Your task to perform on an android device: stop showing notifications on the lock screen Image 0: 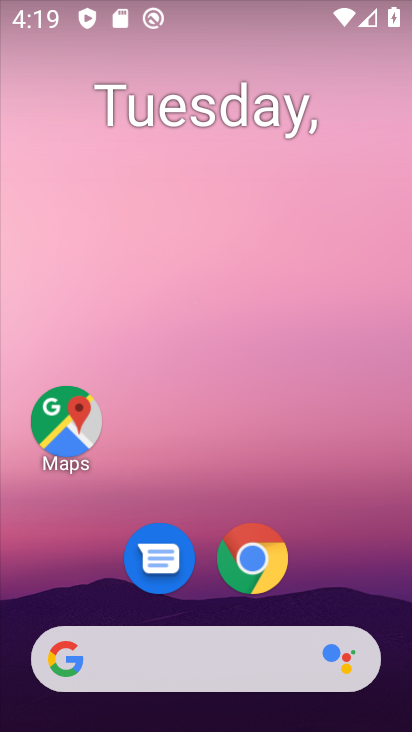
Step 0: drag from (177, 601) to (191, 237)
Your task to perform on an android device: stop showing notifications on the lock screen Image 1: 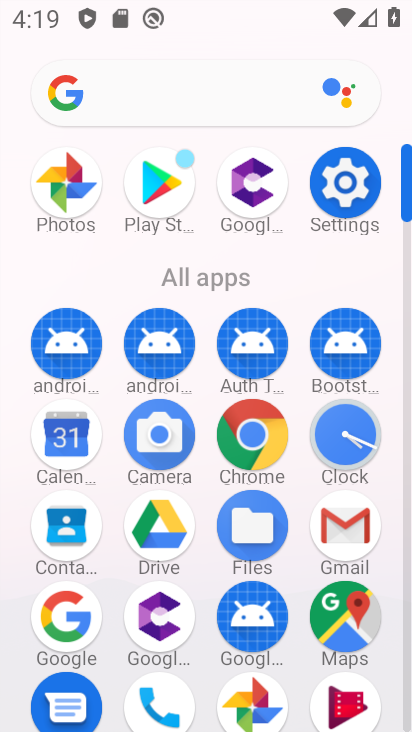
Step 1: click (350, 189)
Your task to perform on an android device: stop showing notifications on the lock screen Image 2: 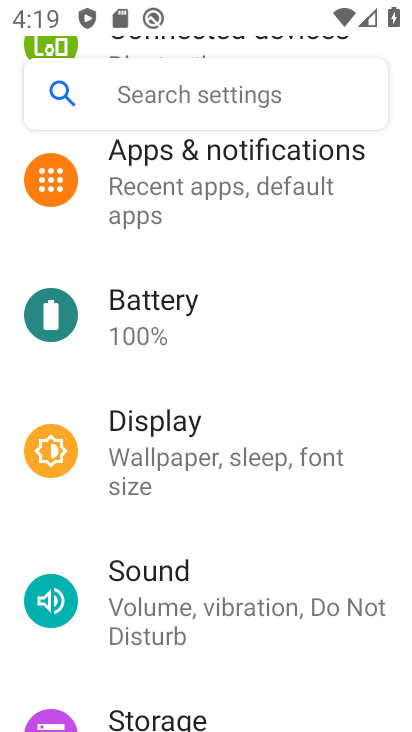
Step 2: click (188, 184)
Your task to perform on an android device: stop showing notifications on the lock screen Image 3: 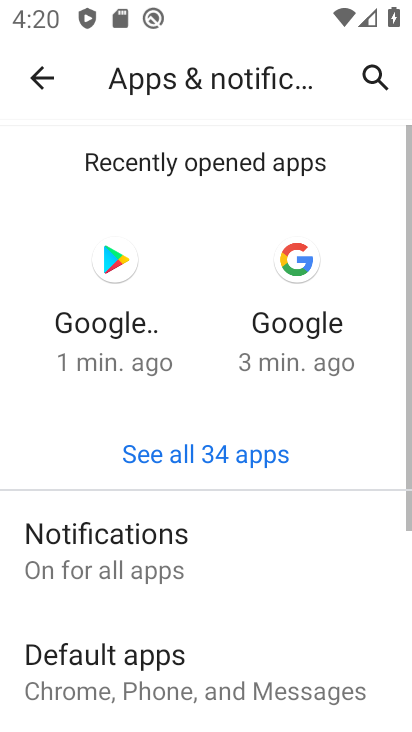
Step 3: click (138, 558)
Your task to perform on an android device: stop showing notifications on the lock screen Image 4: 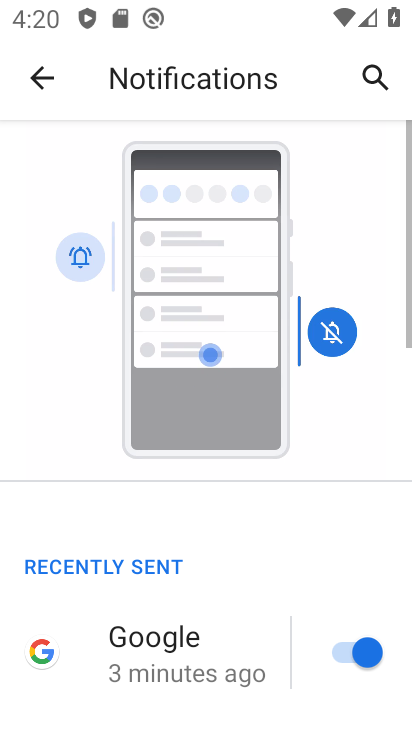
Step 4: drag from (235, 590) to (186, 203)
Your task to perform on an android device: stop showing notifications on the lock screen Image 5: 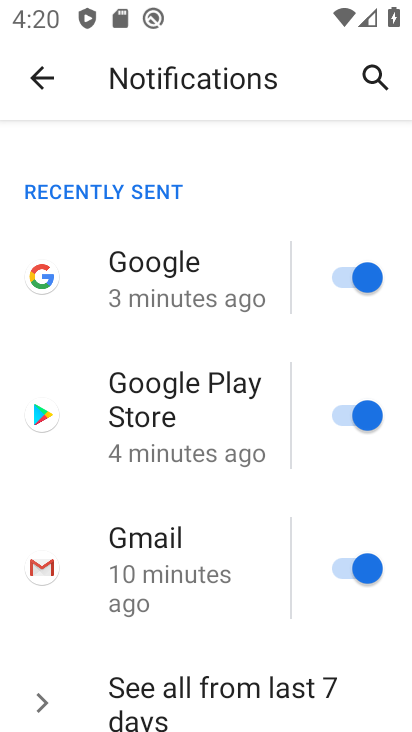
Step 5: drag from (173, 642) to (151, 213)
Your task to perform on an android device: stop showing notifications on the lock screen Image 6: 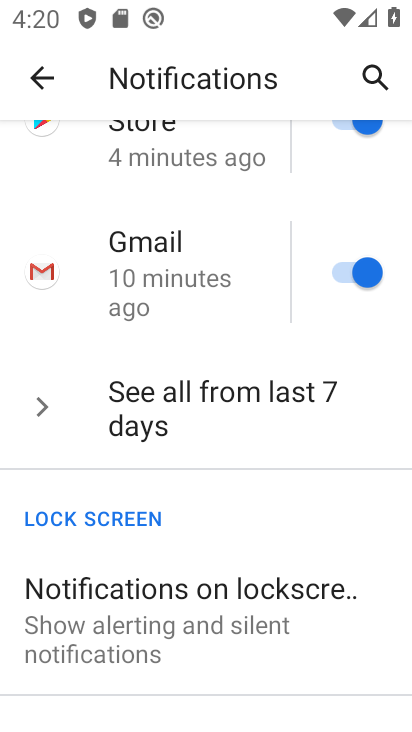
Step 6: click (134, 636)
Your task to perform on an android device: stop showing notifications on the lock screen Image 7: 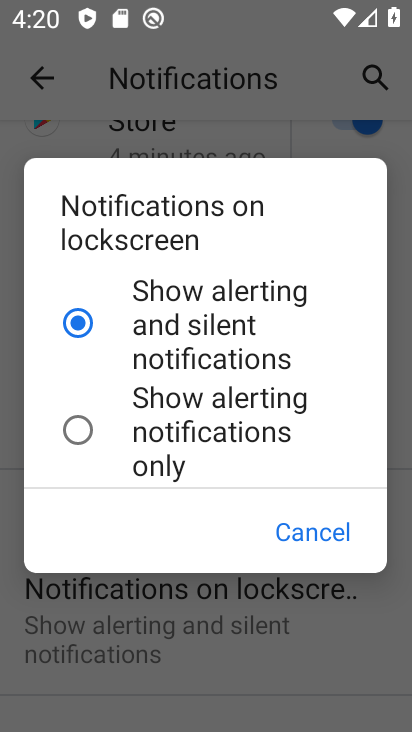
Step 7: task complete